Your task to perform on an android device: change the upload size in google photos Image 0: 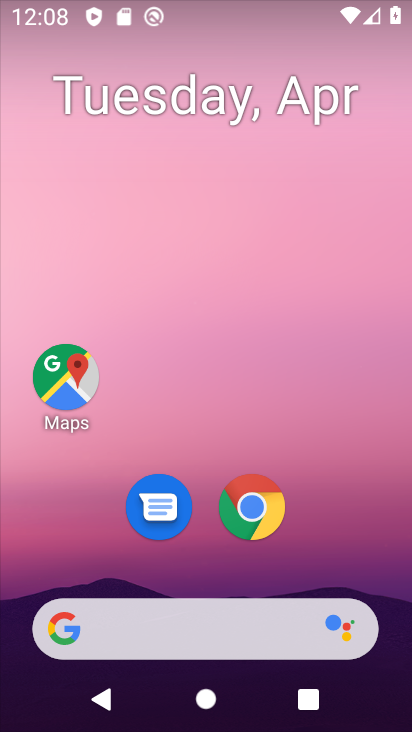
Step 0: drag from (207, 564) to (207, 56)
Your task to perform on an android device: change the upload size in google photos Image 1: 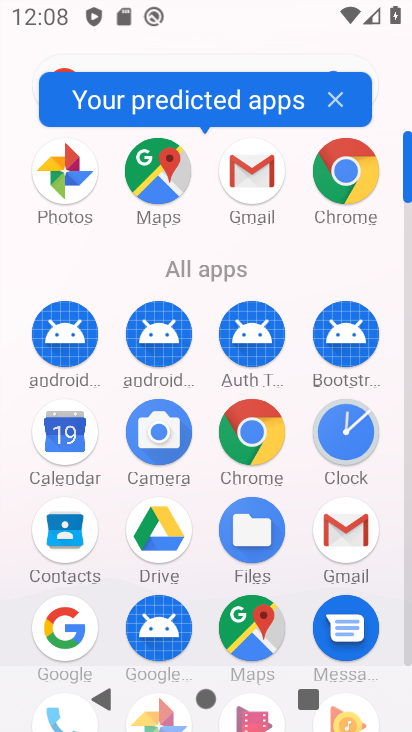
Step 1: click (70, 185)
Your task to perform on an android device: change the upload size in google photos Image 2: 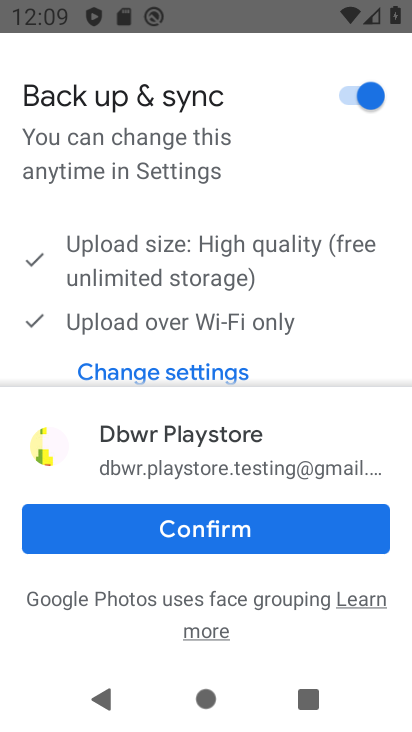
Step 2: click (234, 529)
Your task to perform on an android device: change the upload size in google photos Image 3: 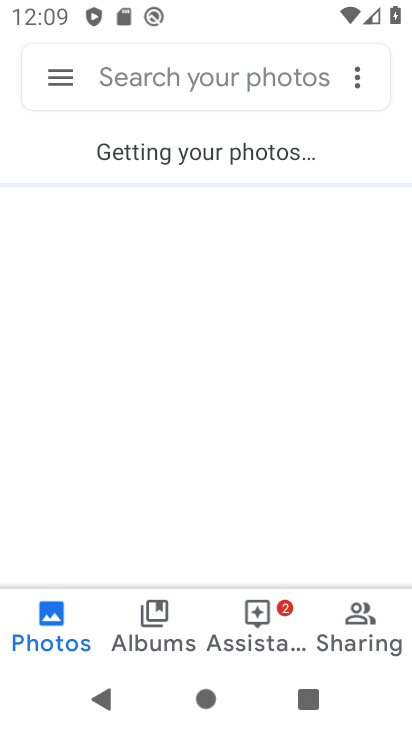
Step 3: click (56, 73)
Your task to perform on an android device: change the upload size in google photos Image 4: 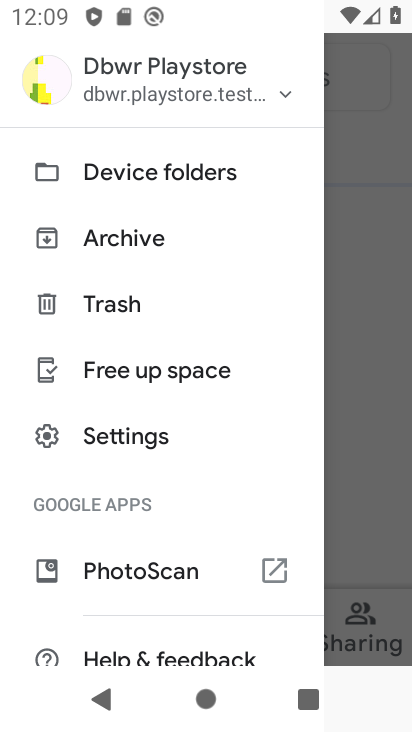
Step 4: click (168, 437)
Your task to perform on an android device: change the upload size in google photos Image 5: 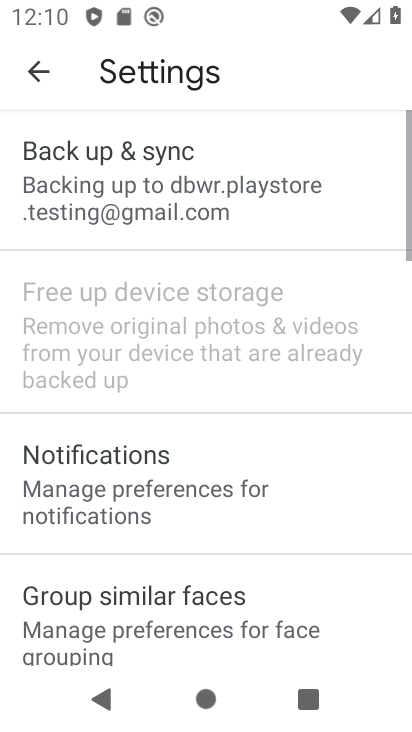
Step 5: click (109, 189)
Your task to perform on an android device: change the upload size in google photos Image 6: 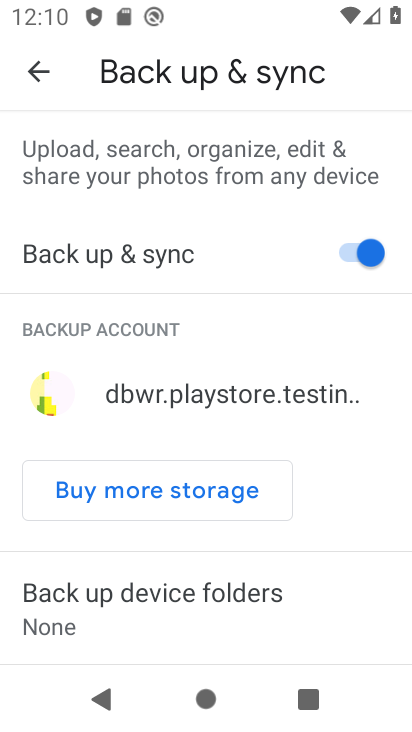
Step 6: drag from (188, 595) to (148, 294)
Your task to perform on an android device: change the upload size in google photos Image 7: 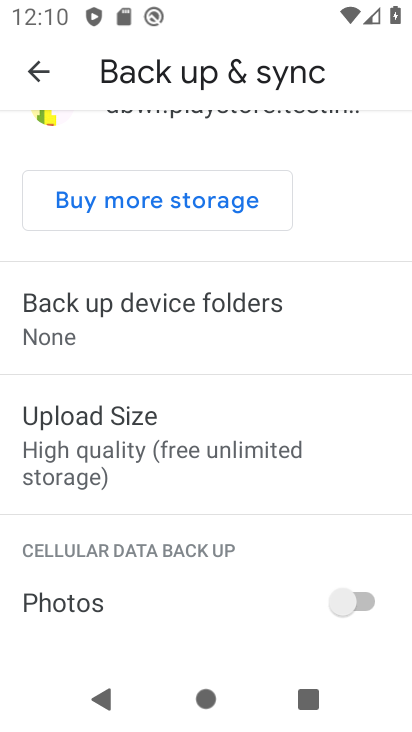
Step 7: click (134, 458)
Your task to perform on an android device: change the upload size in google photos Image 8: 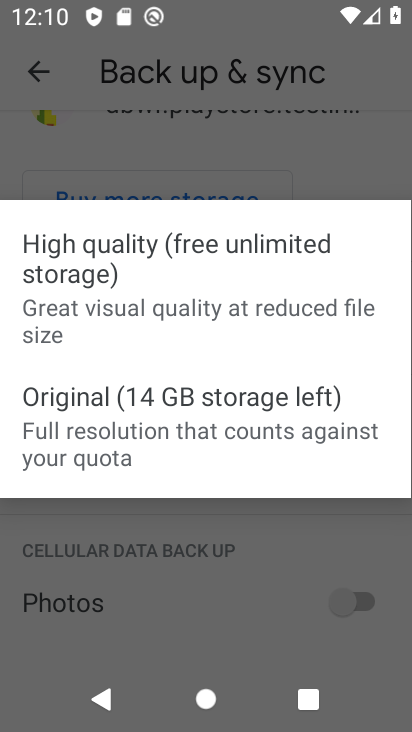
Step 8: click (100, 414)
Your task to perform on an android device: change the upload size in google photos Image 9: 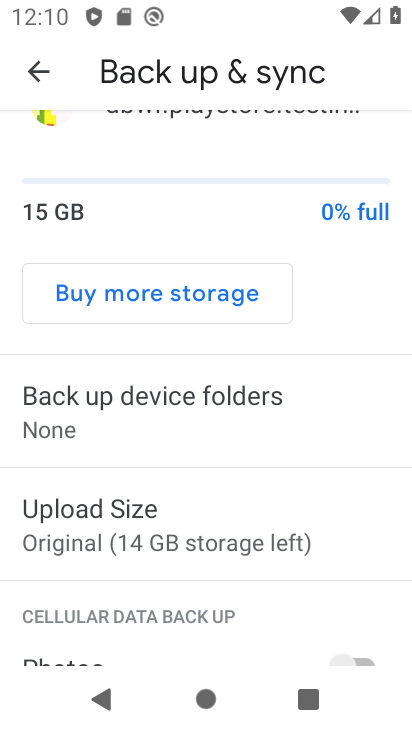
Step 9: task complete